Your task to perform on an android device: Go to settings Image 0: 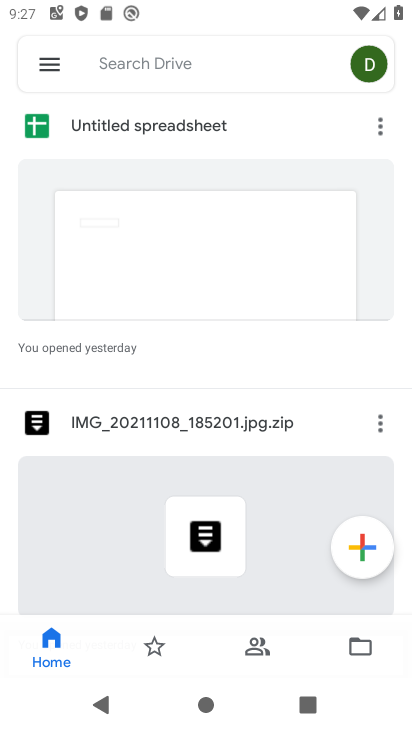
Step 0: press home button
Your task to perform on an android device: Go to settings Image 1: 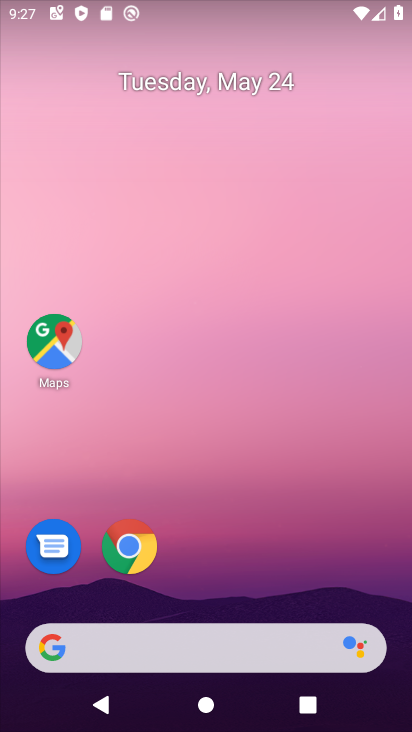
Step 1: drag from (266, 577) to (255, 32)
Your task to perform on an android device: Go to settings Image 2: 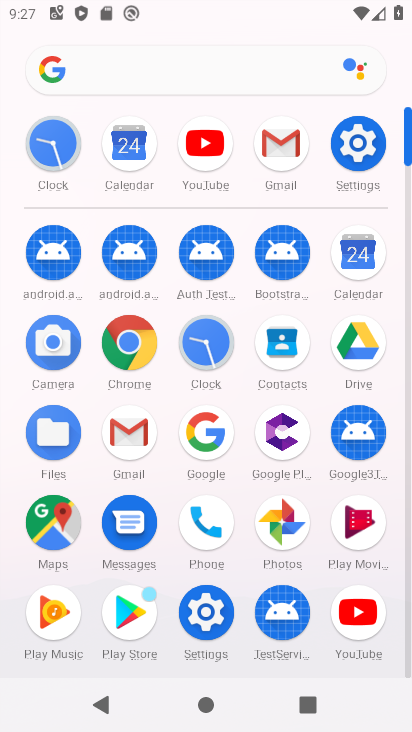
Step 2: click (350, 146)
Your task to perform on an android device: Go to settings Image 3: 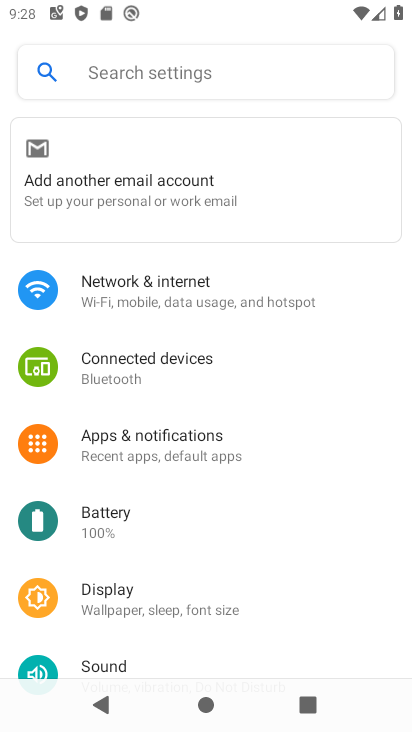
Step 3: task complete